Your task to perform on an android device: turn off translation in the chrome app Image 0: 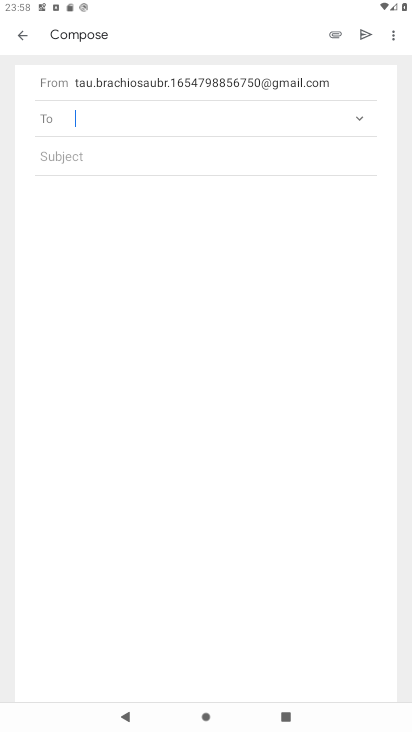
Step 0: drag from (313, 637) to (269, 261)
Your task to perform on an android device: turn off translation in the chrome app Image 1: 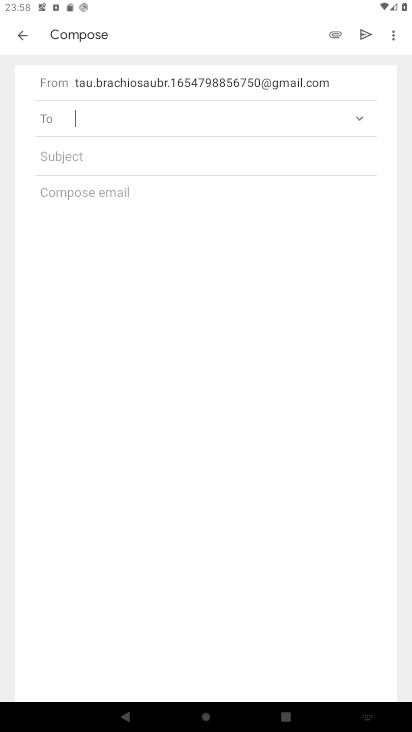
Step 1: press home button
Your task to perform on an android device: turn off translation in the chrome app Image 2: 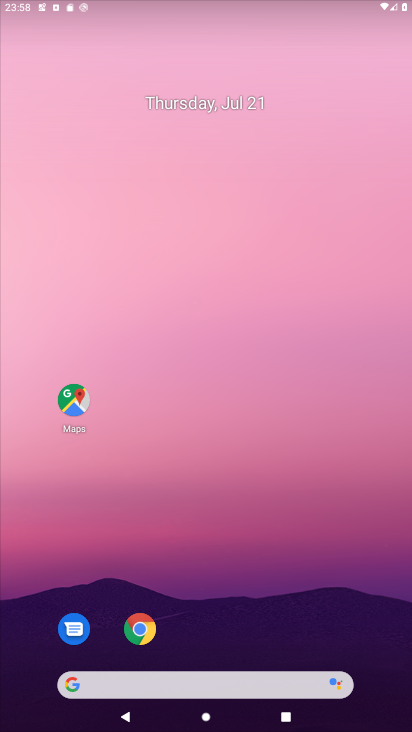
Step 2: drag from (252, 487) to (293, 183)
Your task to perform on an android device: turn off translation in the chrome app Image 3: 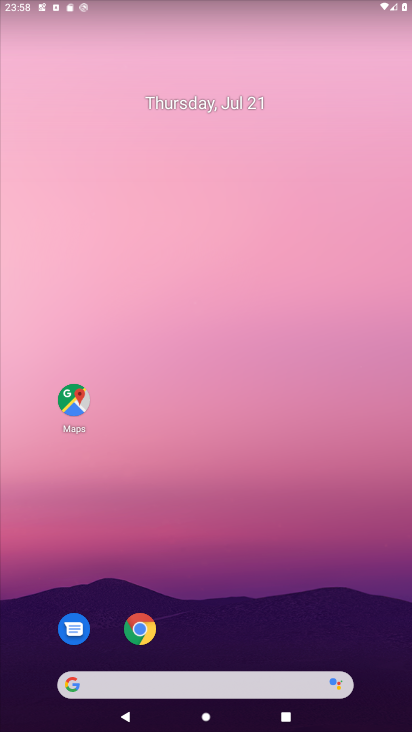
Step 3: drag from (213, 612) to (279, 118)
Your task to perform on an android device: turn off translation in the chrome app Image 4: 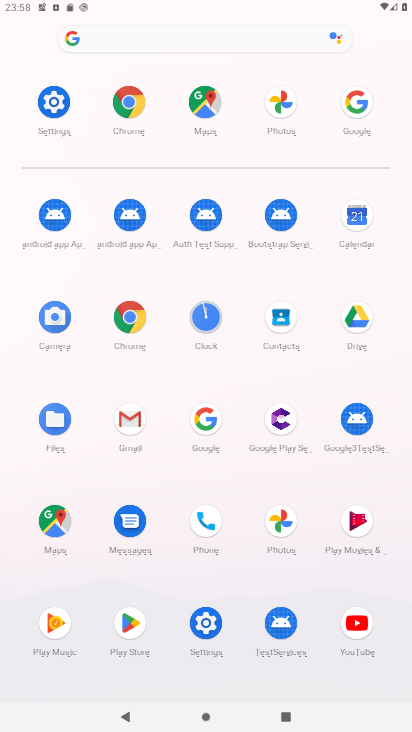
Step 4: click (152, 295)
Your task to perform on an android device: turn off translation in the chrome app Image 5: 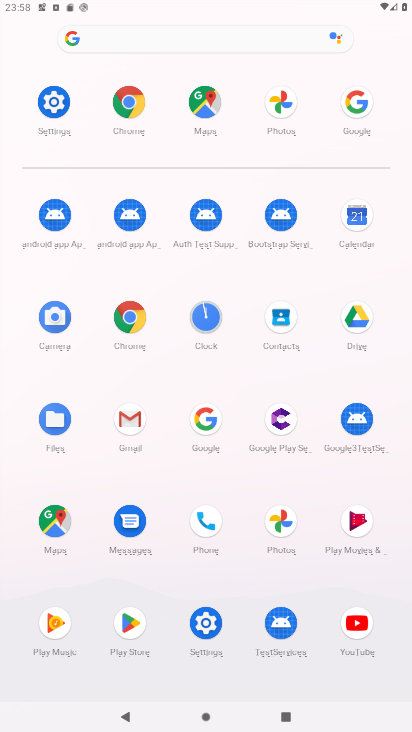
Step 5: click (132, 332)
Your task to perform on an android device: turn off translation in the chrome app Image 6: 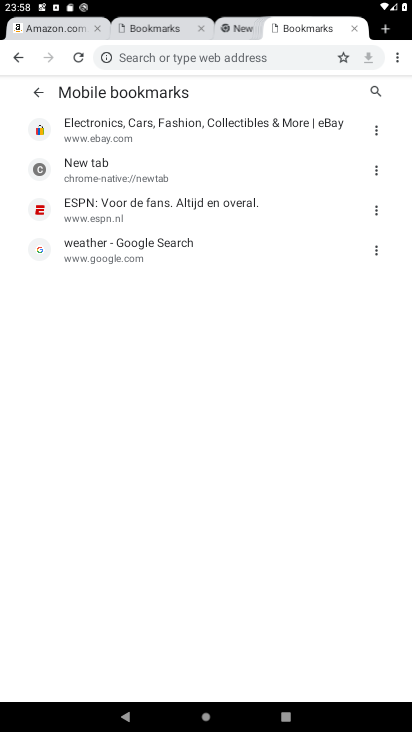
Step 6: click (398, 65)
Your task to perform on an android device: turn off translation in the chrome app Image 7: 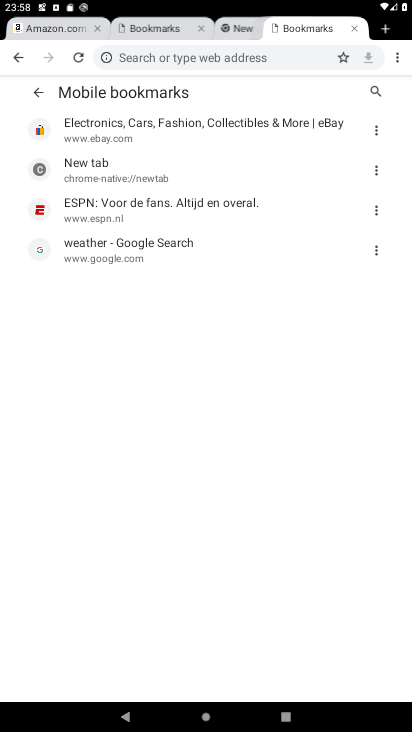
Step 7: click (403, 60)
Your task to perform on an android device: turn off translation in the chrome app Image 8: 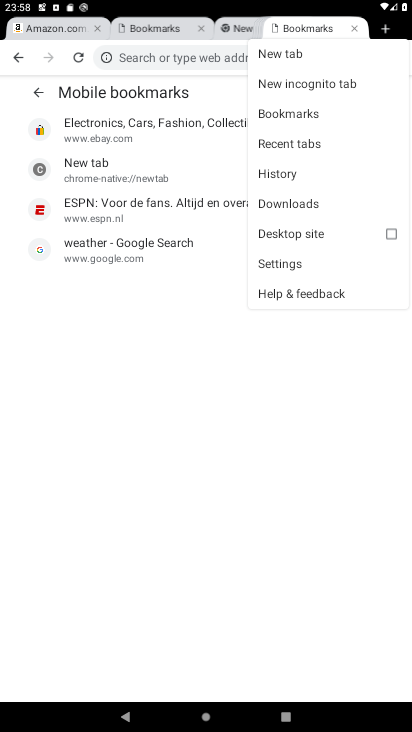
Step 8: click (304, 261)
Your task to perform on an android device: turn off translation in the chrome app Image 9: 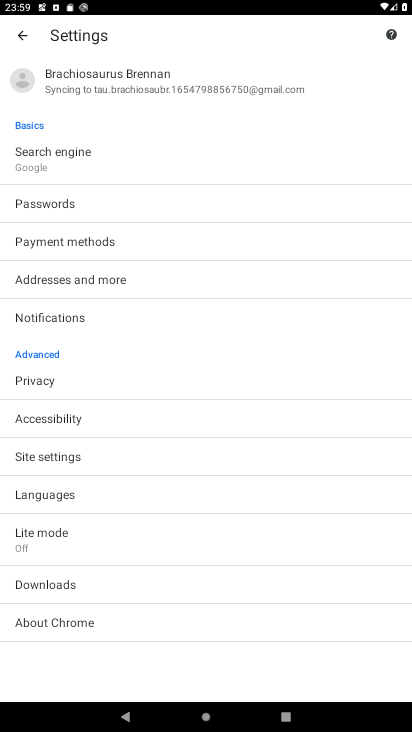
Step 9: click (94, 495)
Your task to perform on an android device: turn off translation in the chrome app Image 10: 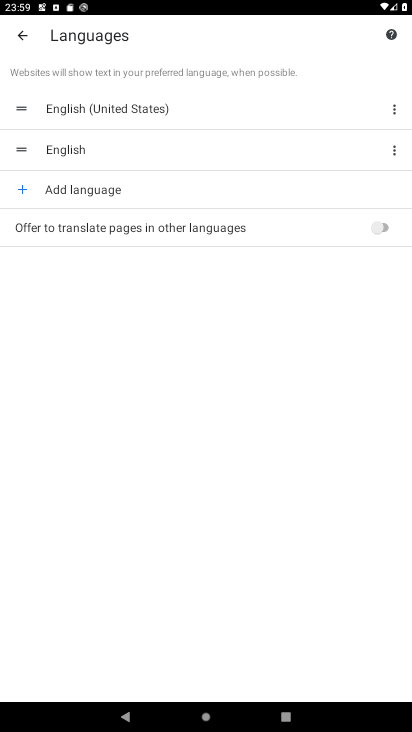
Step 10: task complete